Your task to perform on an android device: Search for "macbook air" on costco.com, select the first entry, add it to the cart, then select checkout. Image 0: 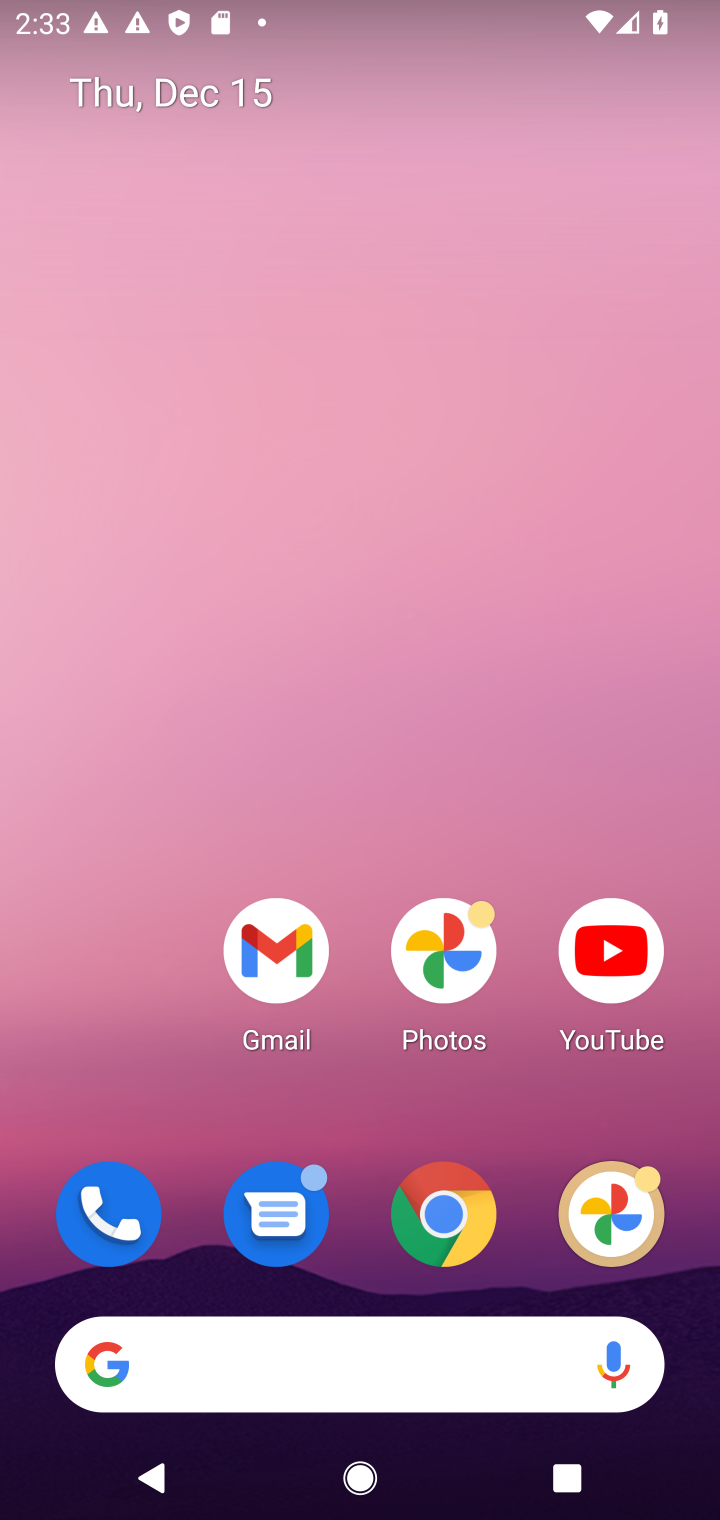
Step 0: click (460, 1213)
Your task to perform on an android device: Search for "macbook air" on costco.com, select the first entry, add it to the cart, then select checkout. Image 1: 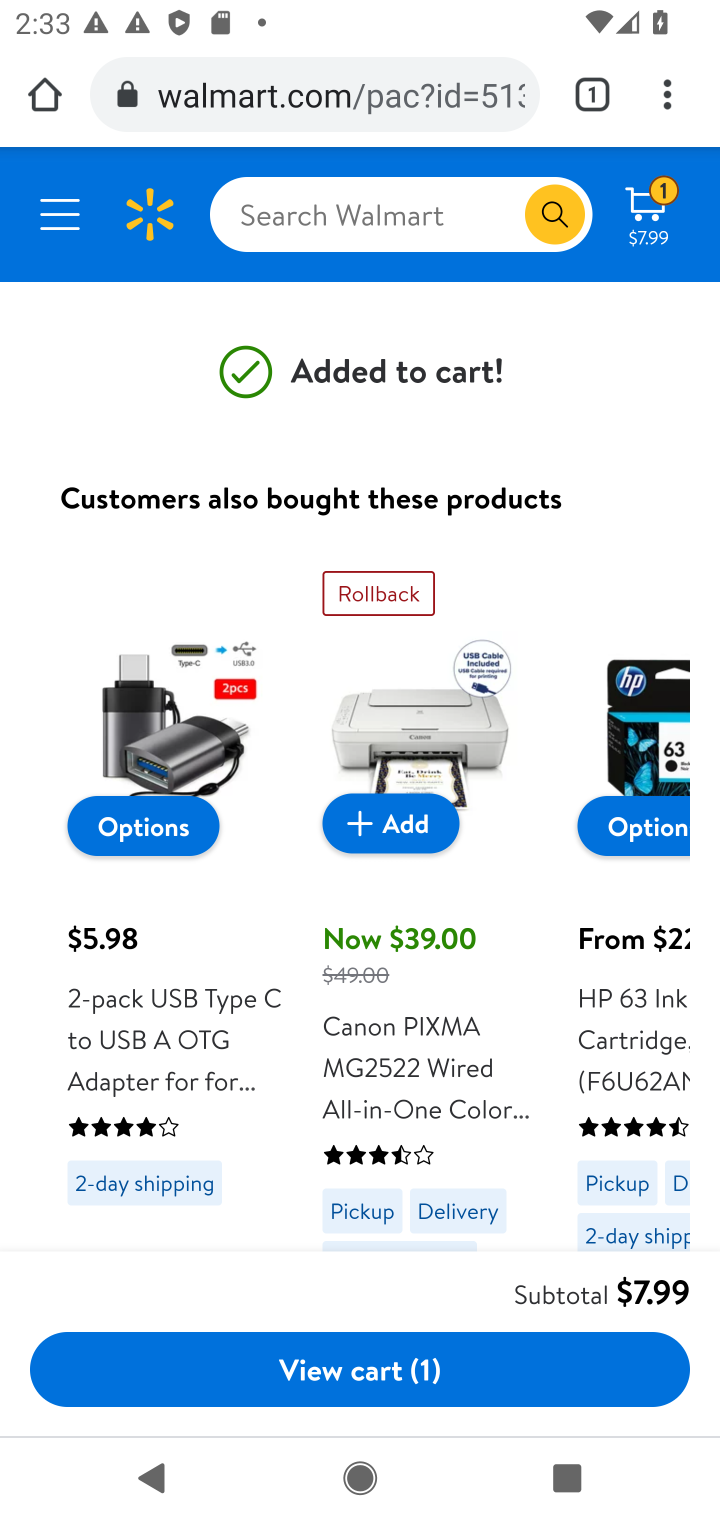
Step 1: click (287, 100)
Your task to perform on an android device: Search for "macbook air" on costco.com, select the first entry, add it to the cart, then select checkout. Image 2: 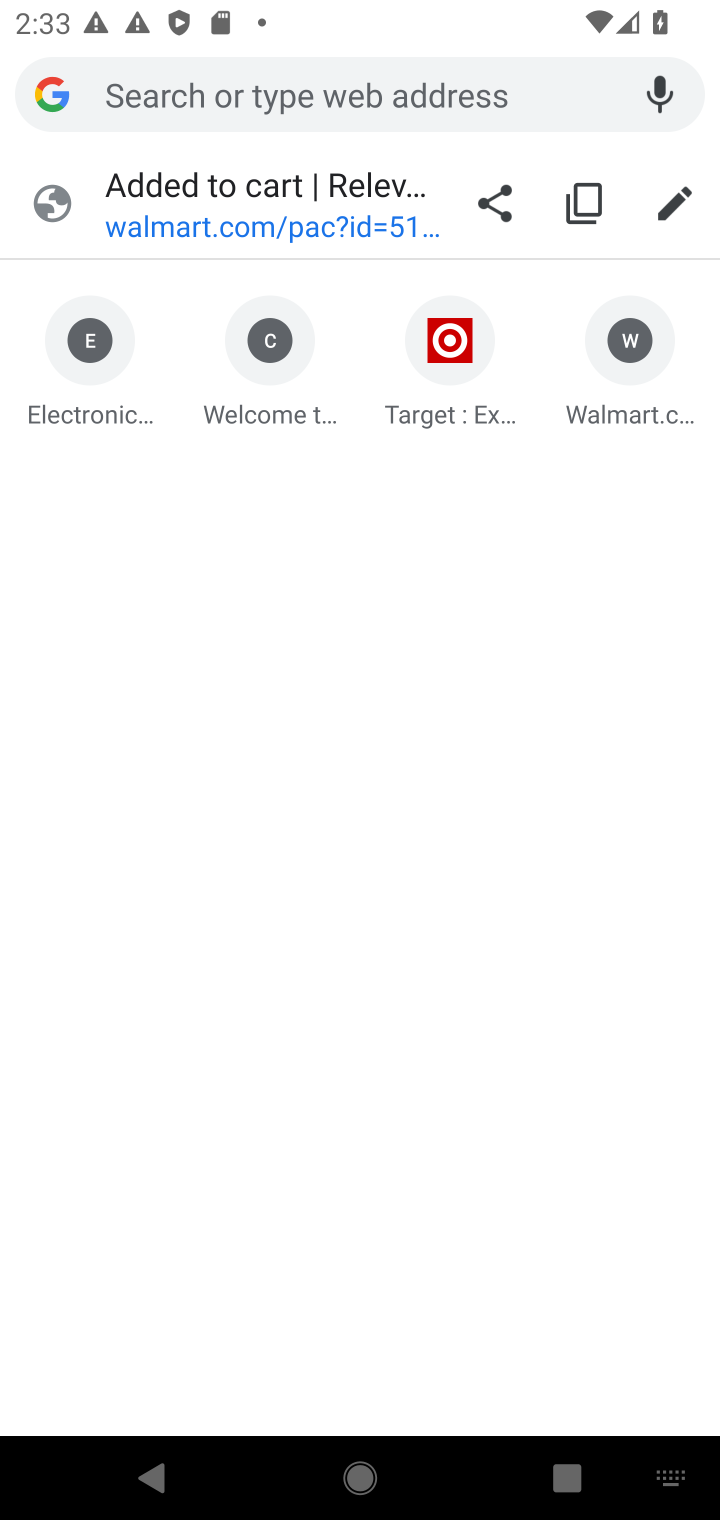
Step 2: type "costco.com"
Your task to perform on an android device: Search for "macbook air" on costco.com, select the first entry, add it to the cart, then select checkout. Image 3: 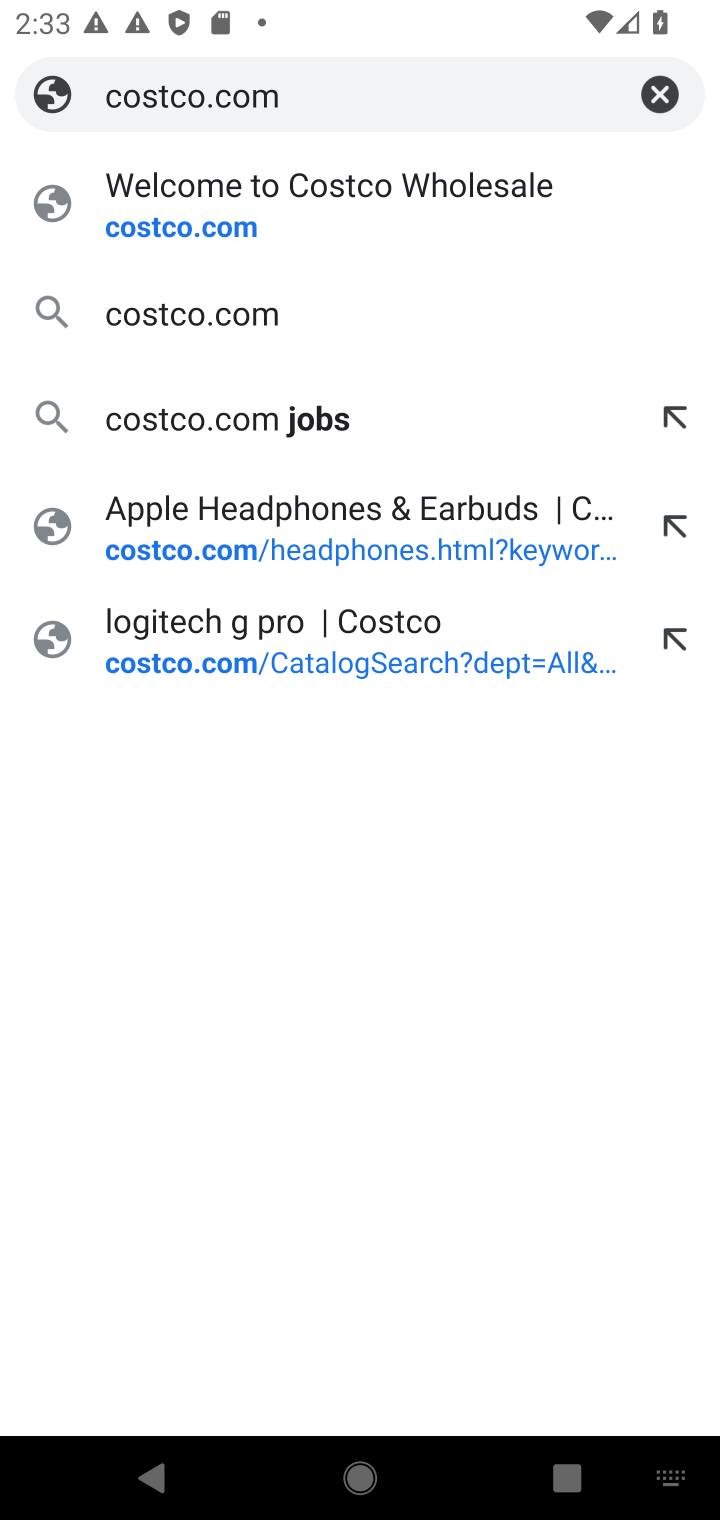
Step 3: click (267, 213)
Your task to perform on an android device: Search for "macbook air" on costco.com, select the first entry, add it to the cart, then select checkout. Image 4: 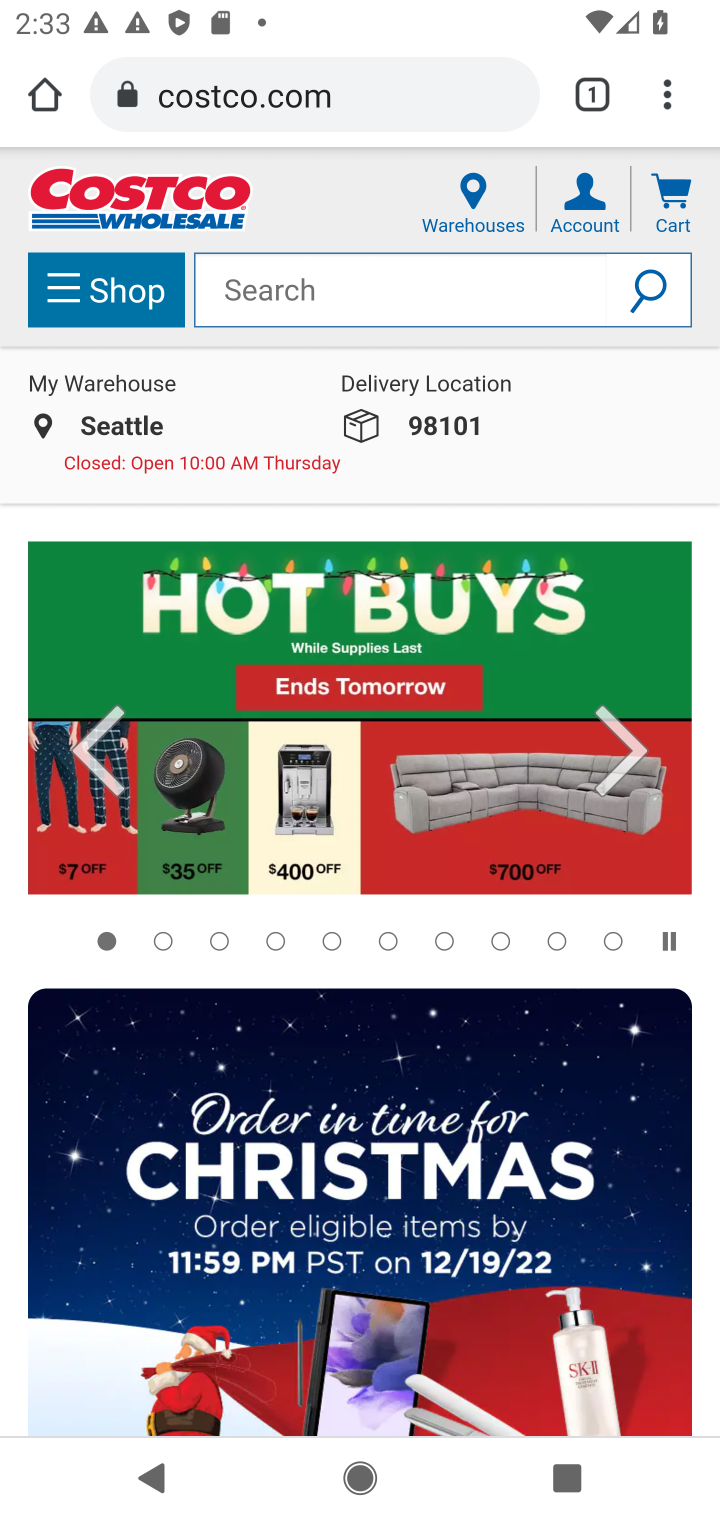
Step 4: click (261, 293)
Your task to perform on an android device: Search for "macbook air" on costco.com, select the first entry, add it to the cart, then select checkout. Image 5: 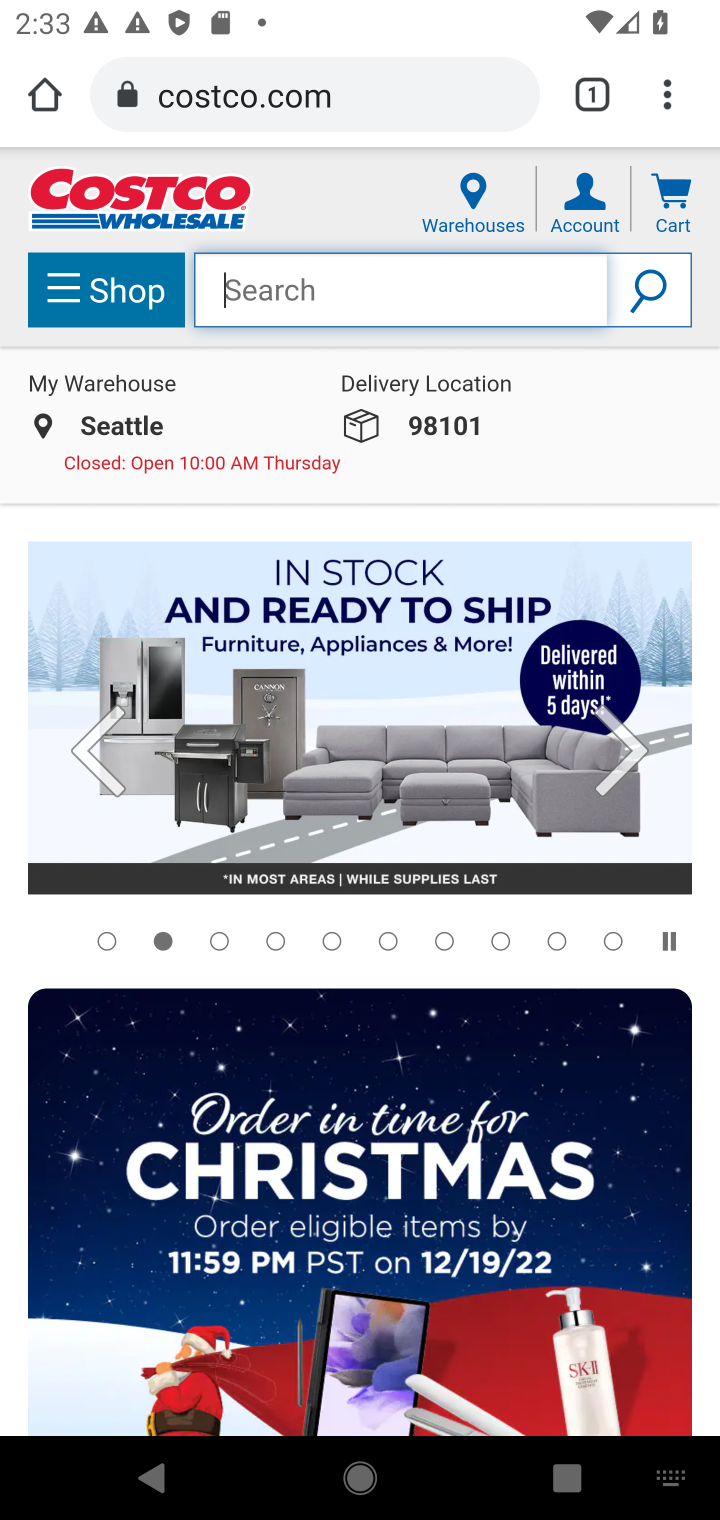
Step 5: type "macbook air"
Your task to perform on an android device: Search for "macbook air" on costco.com, select the first entry, add it to the cart, then select checkout. Image 6: 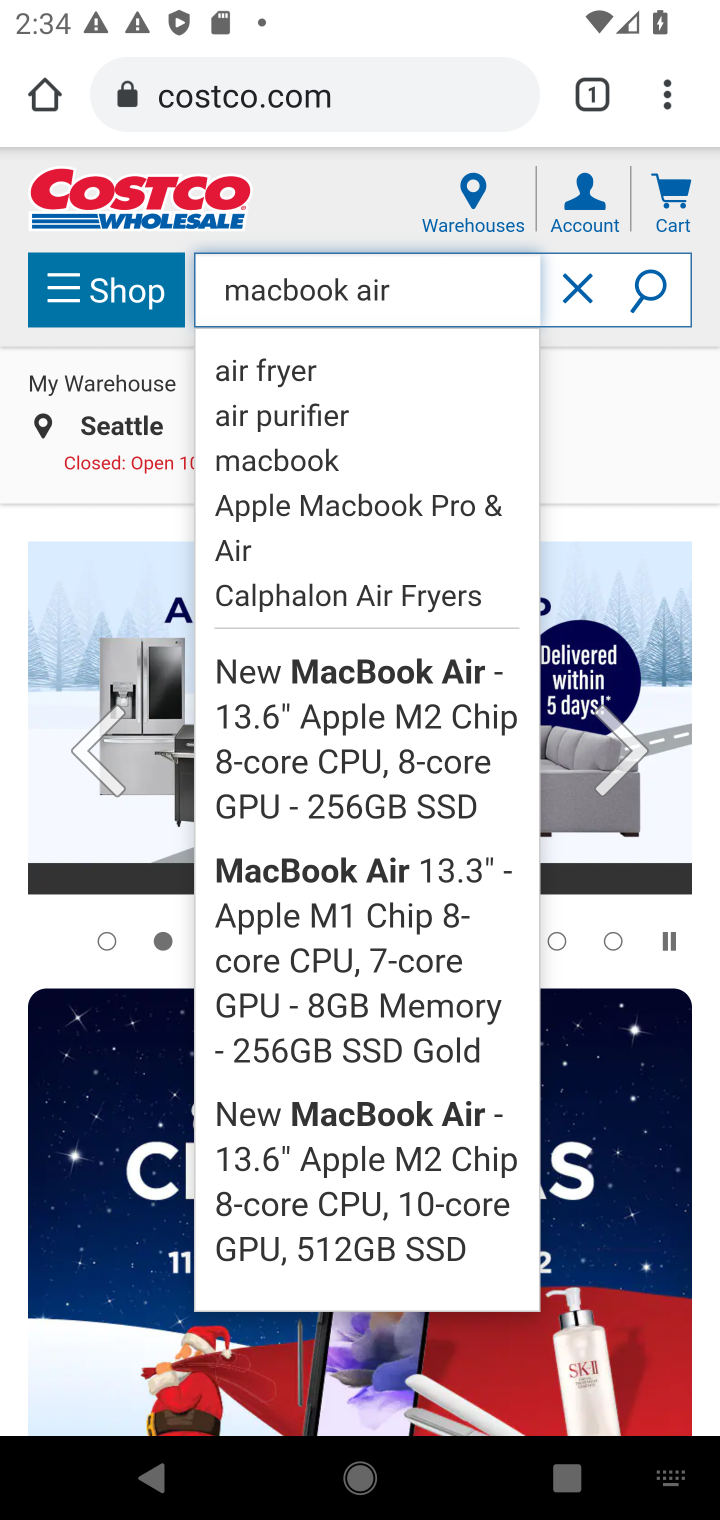
Step 6: click (641, 292)
Your task to perform on an android device: Search for "macbook air" on costco.com, select the first entry, add it to the cart, then select checkout. Image 7: 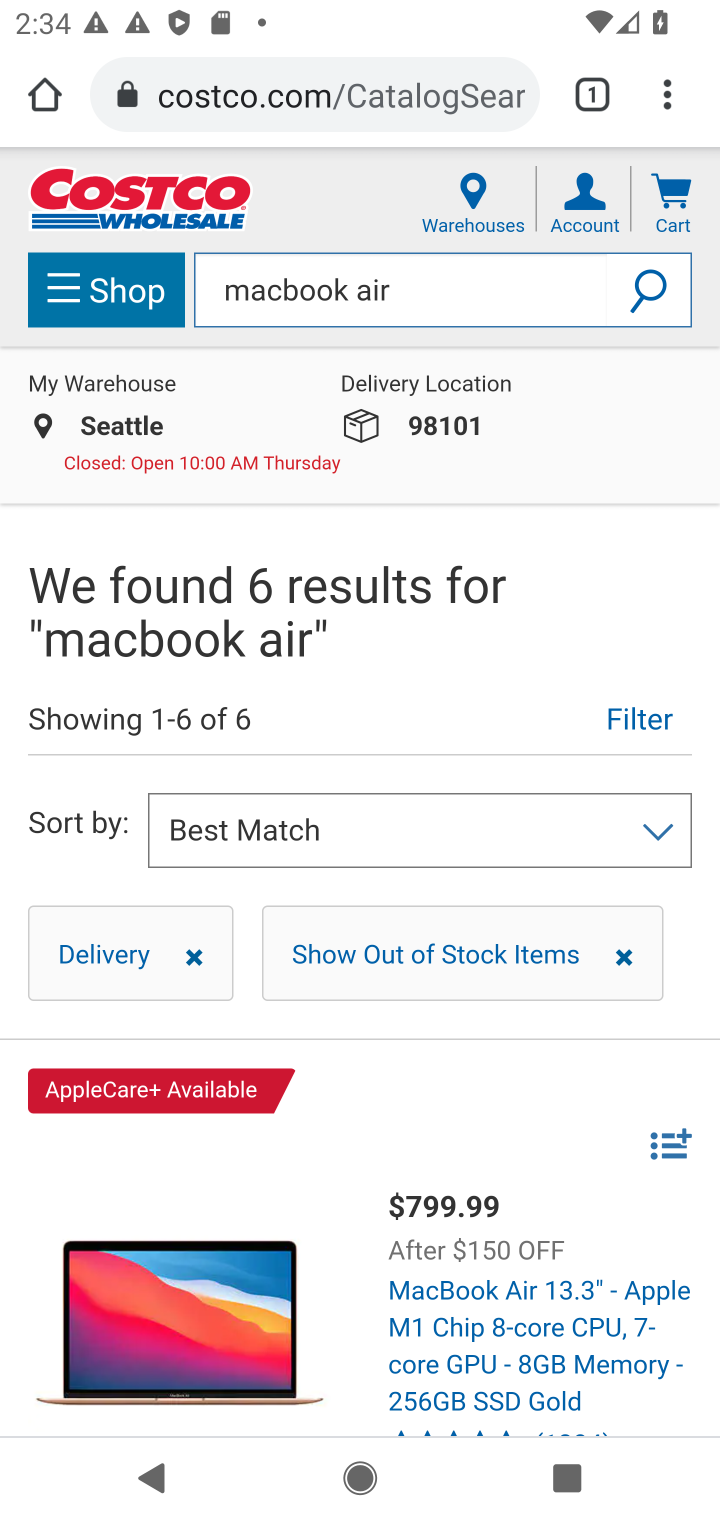
Step 7: drag from (329, 996) to (347, 659)
Your task to perform on an android device: Search for "macbook air" on costco.com, select the first entry, add it to the cart, then select checkout. Image 8: 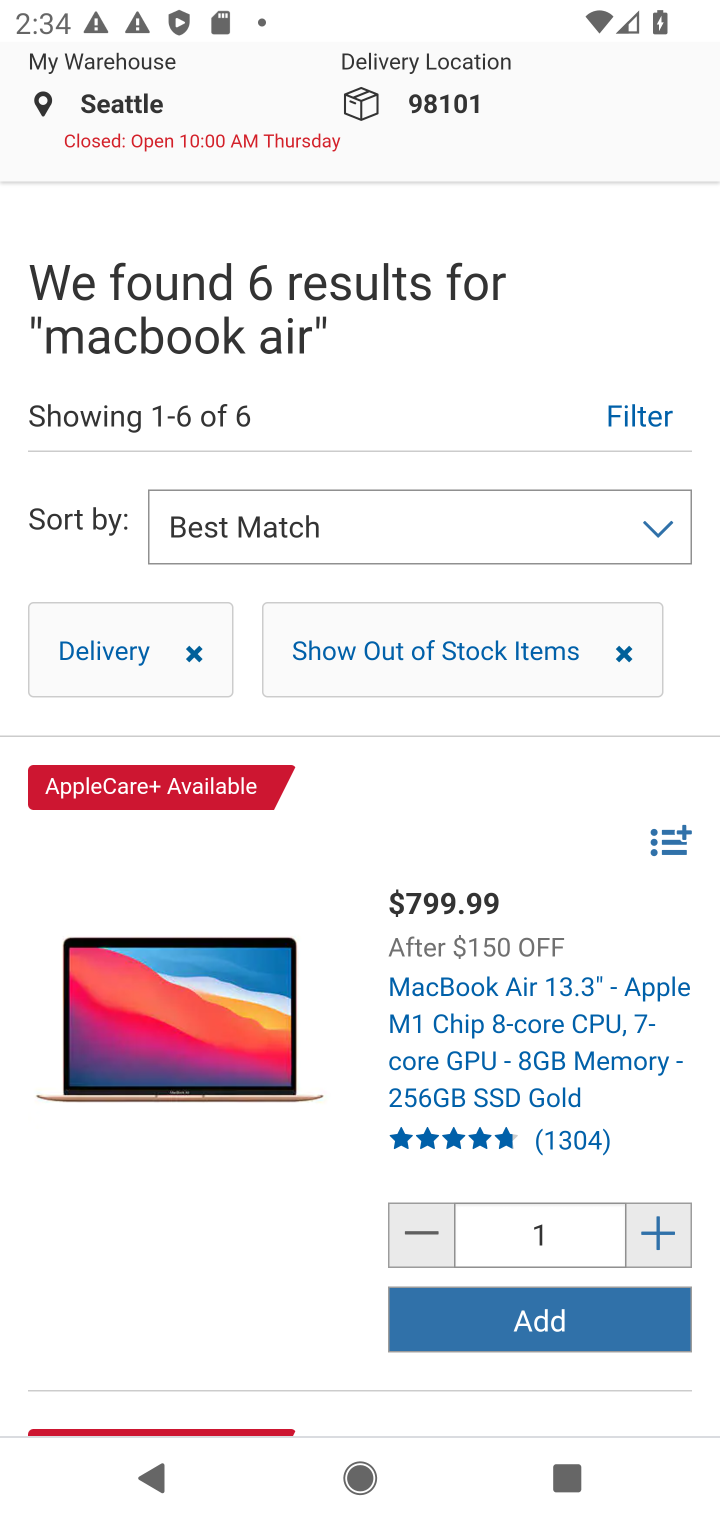
Step 8: click (521, 1329)
Your task to perform on an android device: Search for "macbook air" on costco.com, select the first entry, add it to the cart, then select checkout. Image 9: 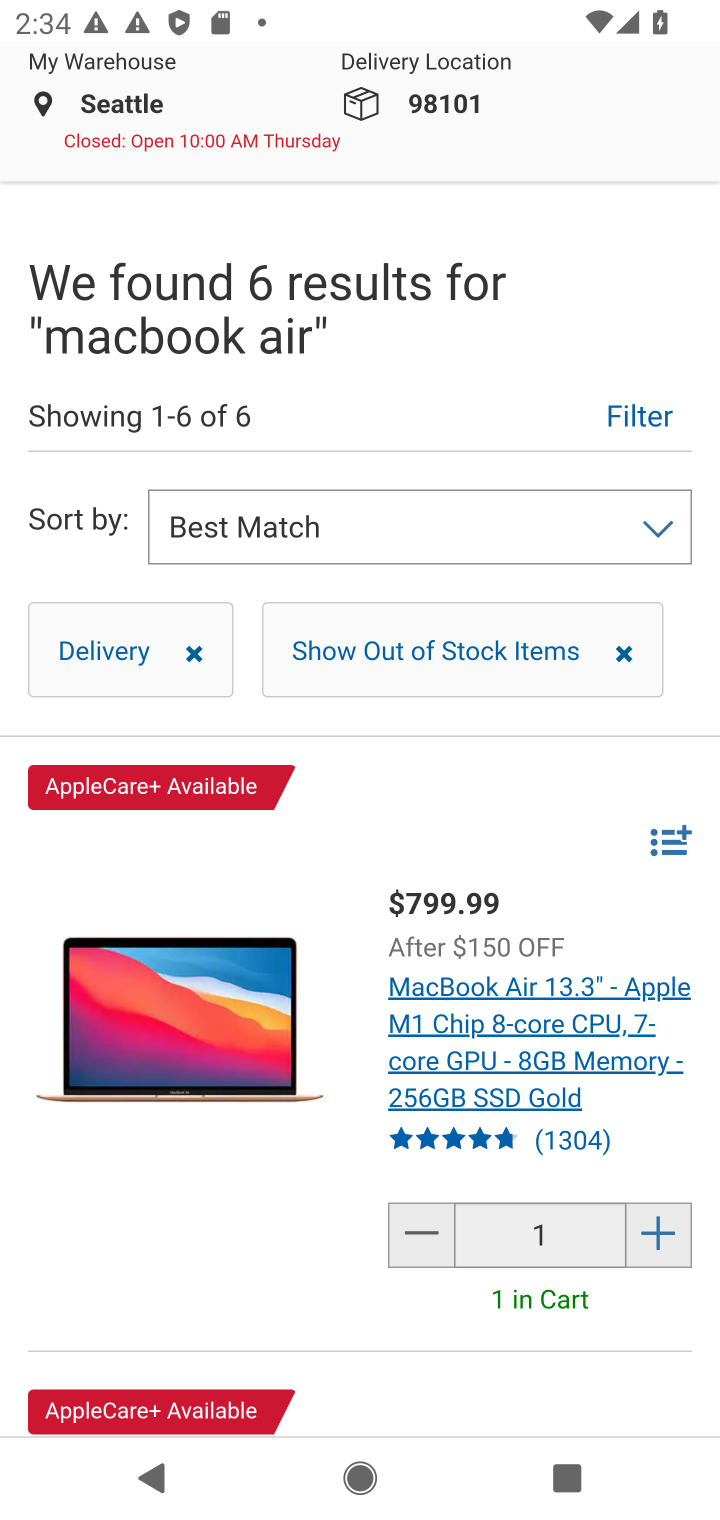
Step 9: drag from (442, 456) to (414, 912)
Your task to perform on an android device: Search for "macbook air" on costco.com, select the first entry, add it to the cart, then select checkout. Image 10: 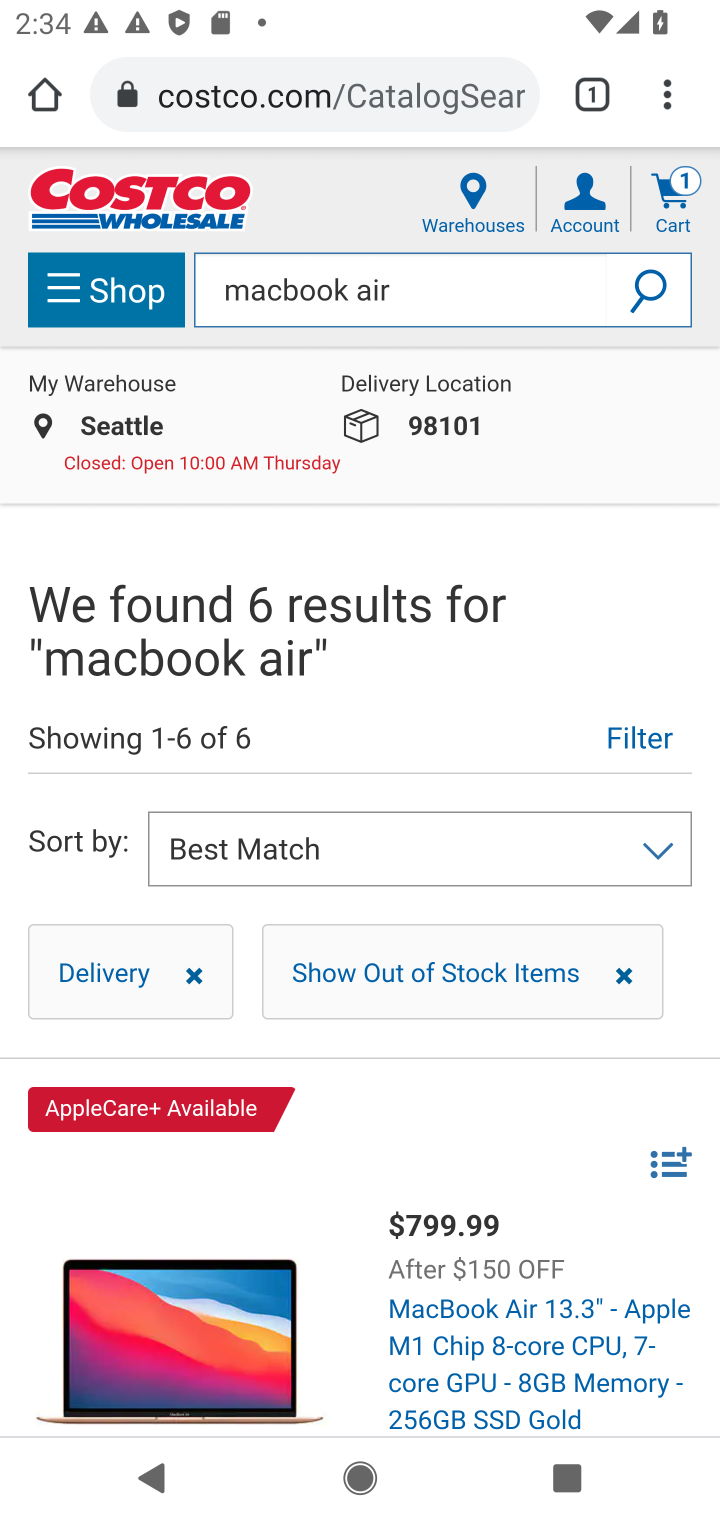
Step 10: click (671, 204)
Your task to perform on an android device: Search for "macbook air" on costco.com, select the first entry, add it to the cart, then select checkout. Image 11: 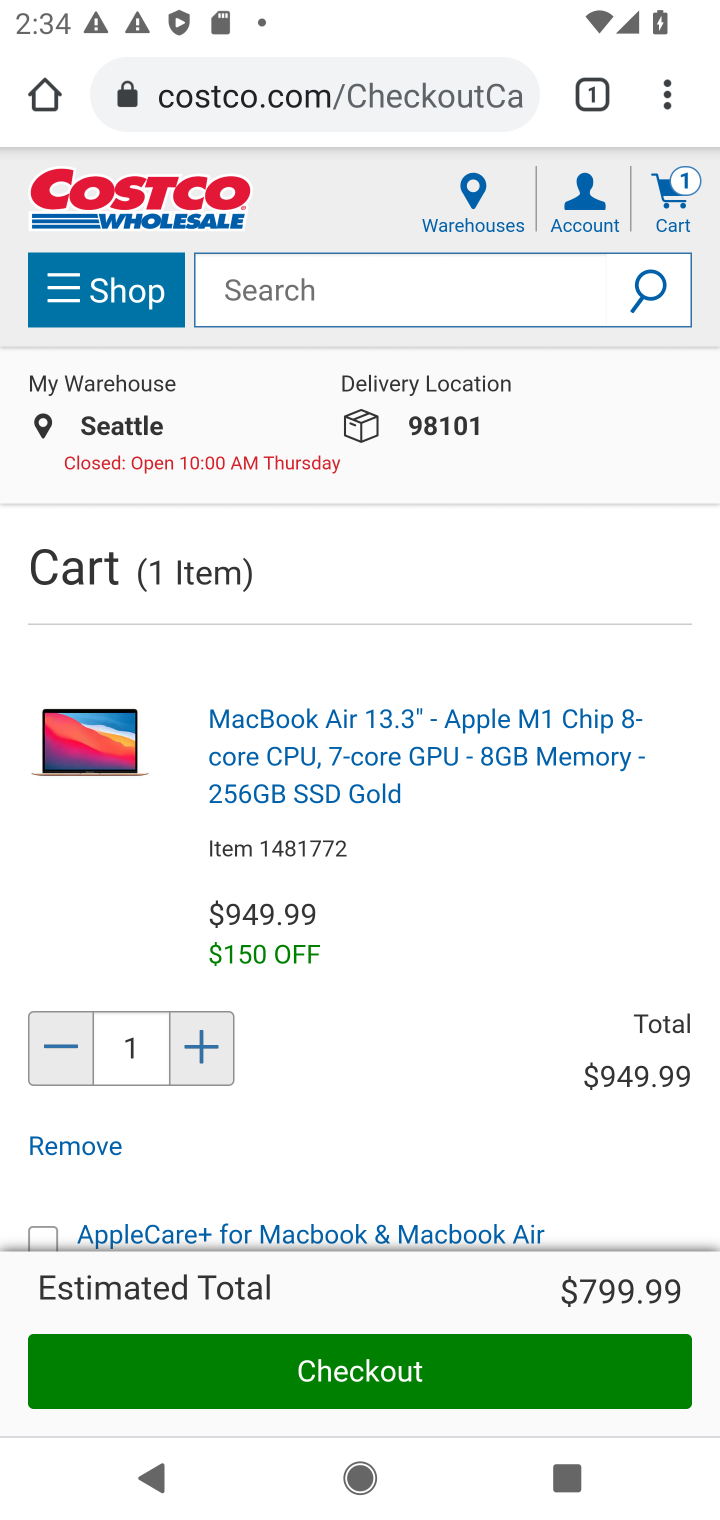
Step 11: click (363, 1369)
Your task to perform on an android device: Search for "macbook air" on costco.com, select the first entry, add it to the cart, then select checkout. Image 12: 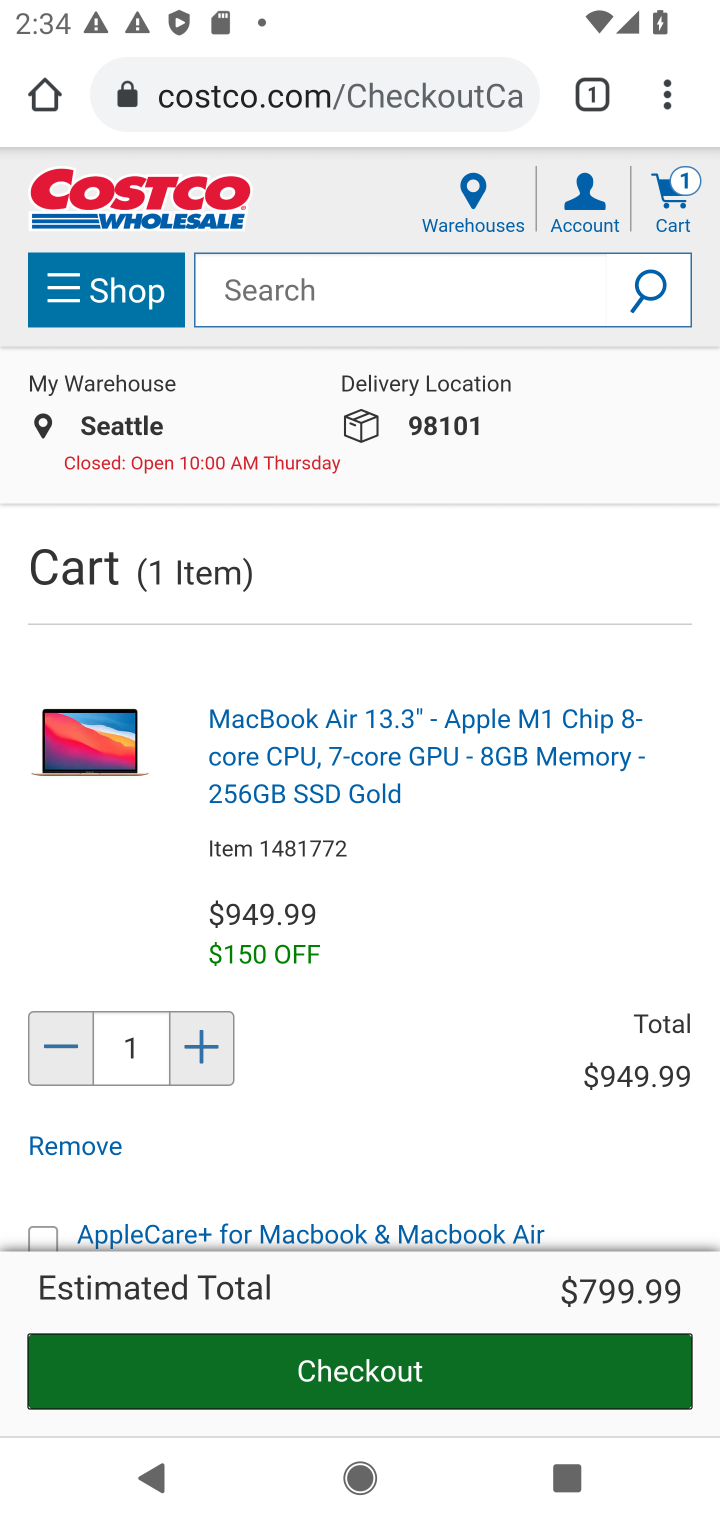
Step 12: click (345, 1366)
Your task to perform on an android device: Search for "macbook air" on costco.com, select the first entry, add it to the cart, then select checkout. Image 13: 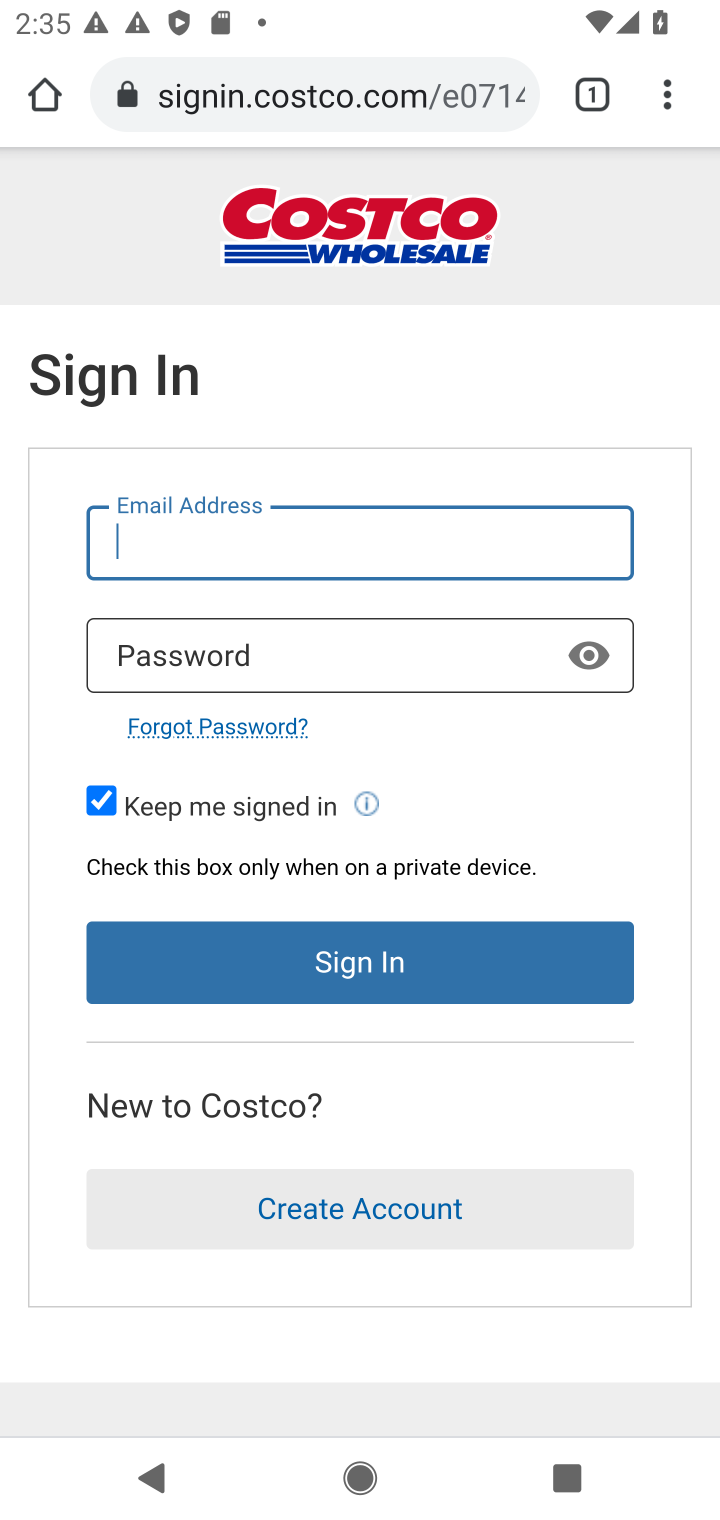
Step 13: task complete